Your task to perform on an android device: change timer sound Image 0: 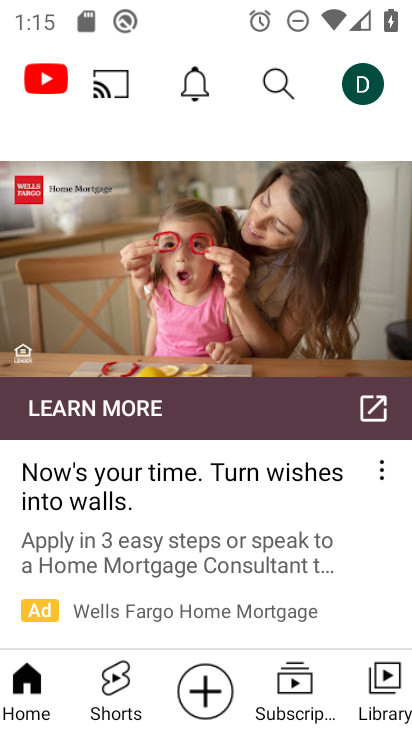
Step 0: press home button
Your task to perform on an android device: change timer sound Image 1: 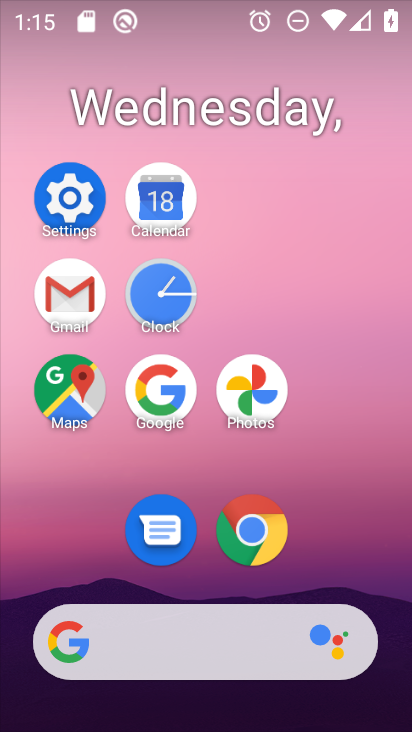
Step 1: click (148, 294)
Your task to perform on an android device: change timer sound Image 2: 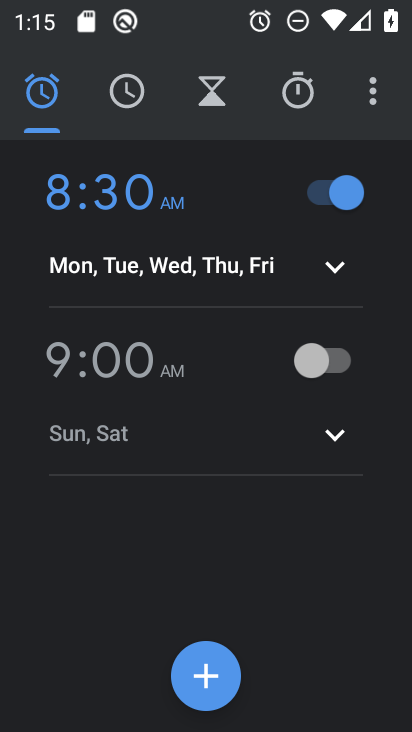
Step 2: click (390, 107)
Your task to perform on an android device: change timer sound Image 3: 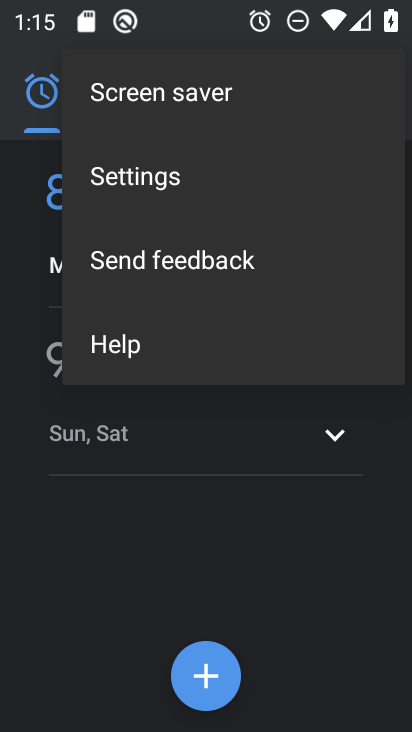
Step 3: click (182, 203)
Your task to perform on an android device: change timer sound Image 4: 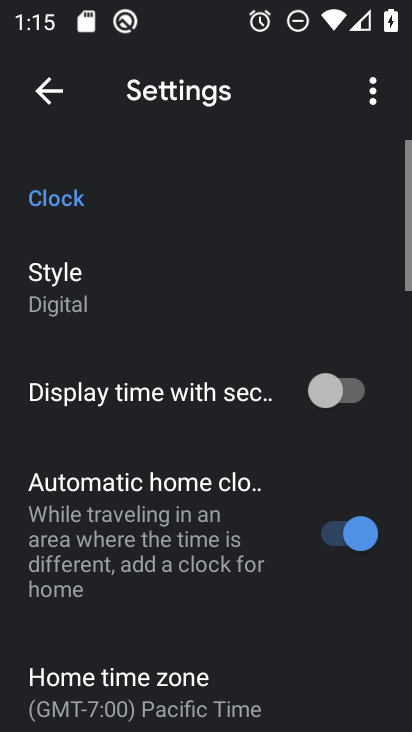
Step 4: drag from (231, 561) to (257, 215)
Your task to perform on an android device: change timer sound Image 5: 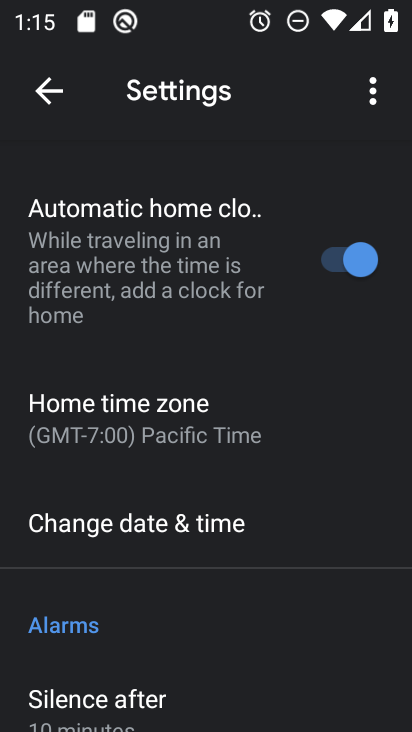
Step 5: drag from (251, 617) to (267, 184)
Your task to perform on an android device: change timer sound Image 6: 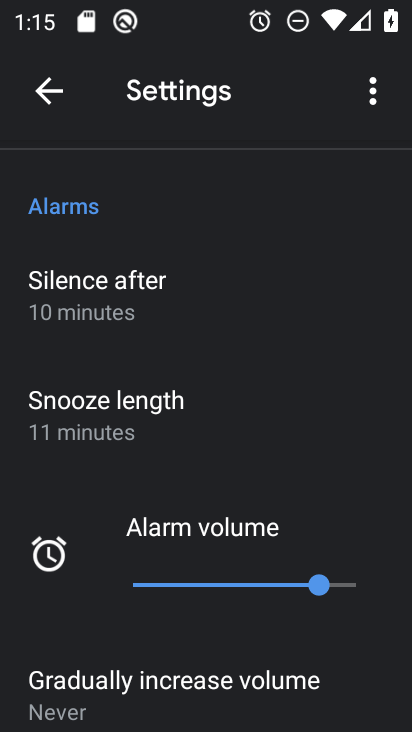
Step 6: drag from (271, 448) to (292, 164)
Your task to perform on an android device: change timer sound Image 7: 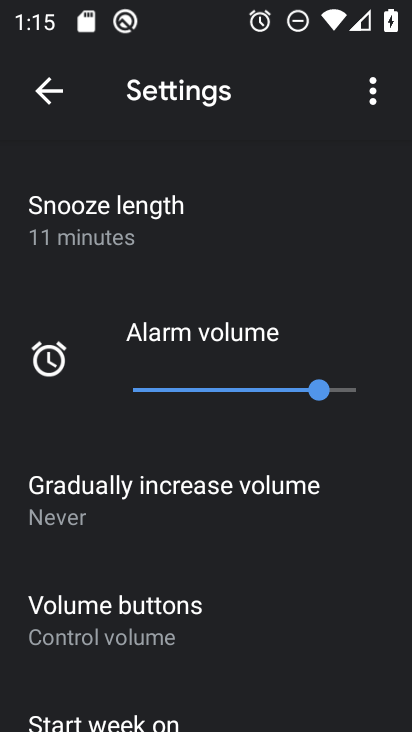
Step 7: drag from (286, 622) to (272, 186)
Your task to perform on an android device: change timer sound Image 8: 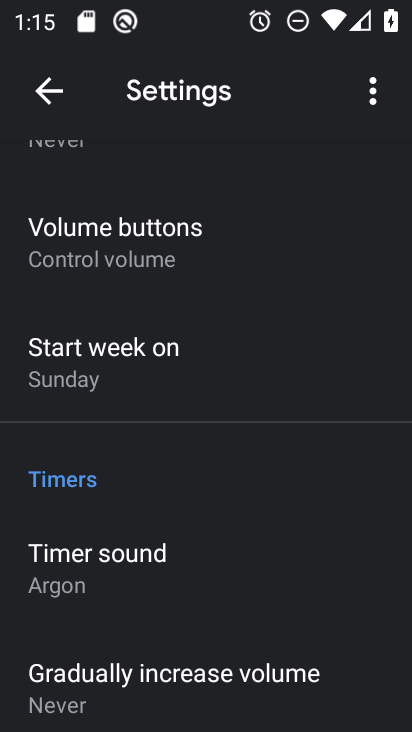
Step 8: click (237, 574)
Your task to perform on an android device: change timer sound Image 9: 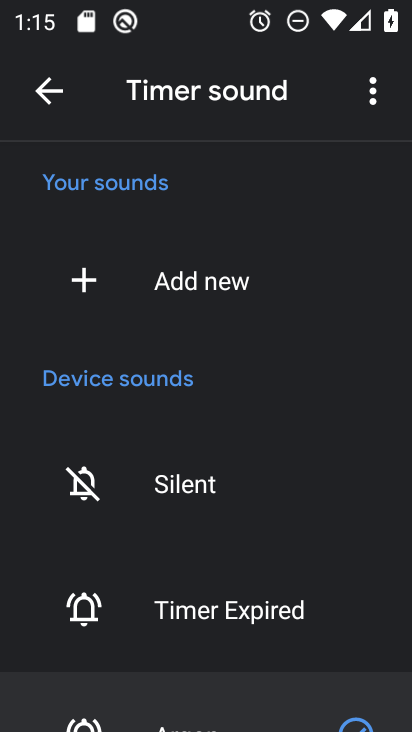
Step 9: drag from (240, 546) to (254, 235)
Your task to perform on an android device: change timer sound Image 10: 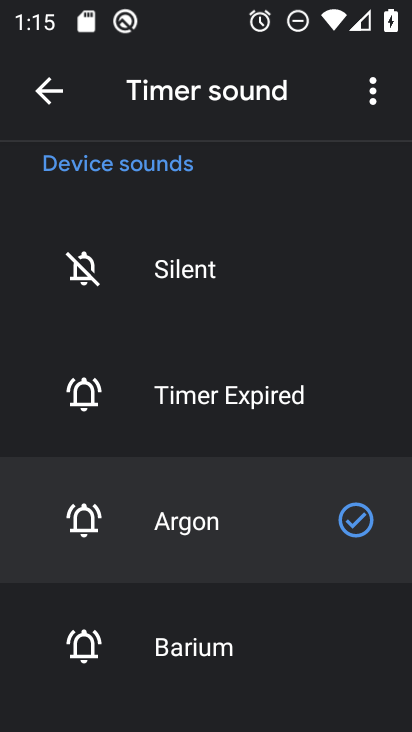
Step 10: click (283, 379)
Your task to perform on an android device: change timer sound Image 11: 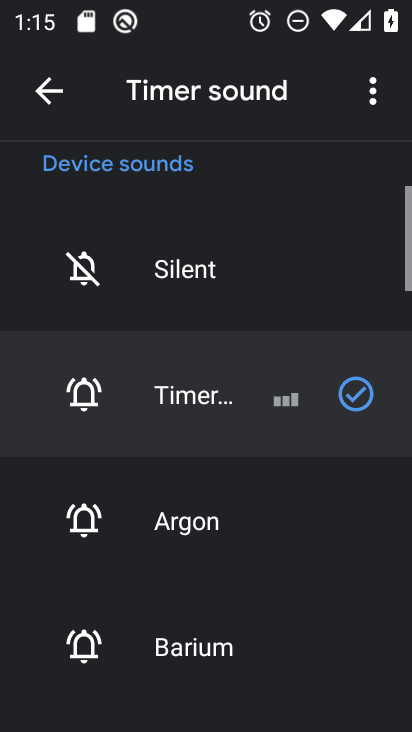
Step 11: task complete